Your task to perform on an android device: turn off javascript in the chrome app Image 0: 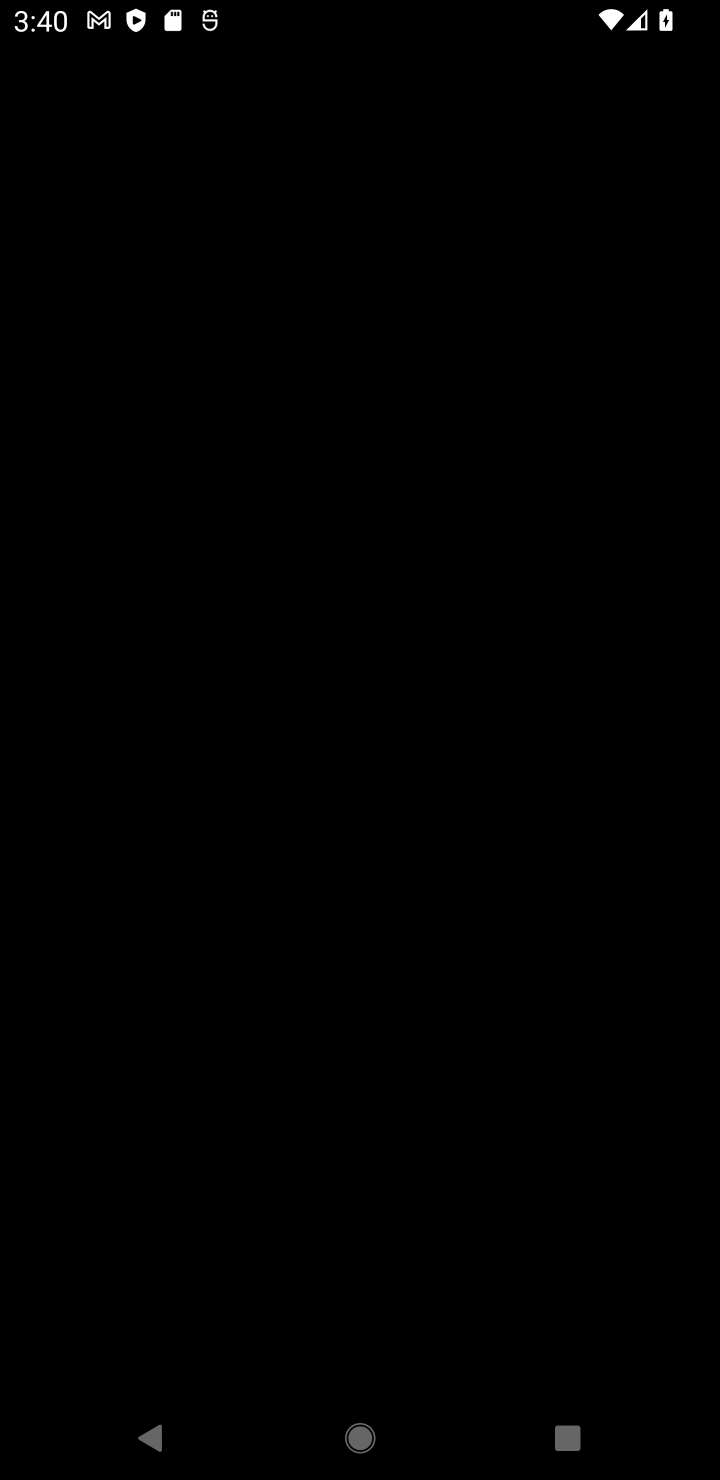
Step 0: press home button
Your task to perform on an android device: turn off javascript in the chrome app Image 1: 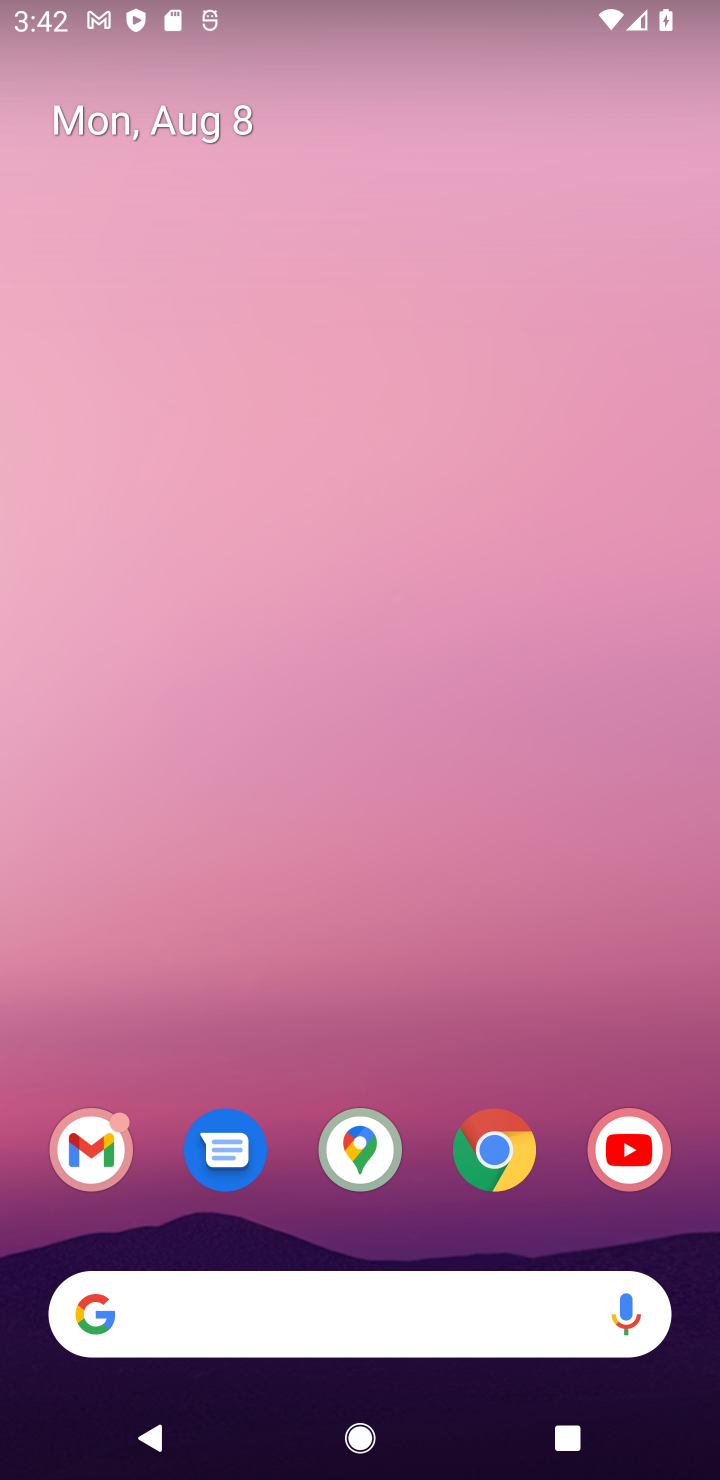
Step 1: click (510, 1124)
Your task to perform on an android device: turn off javascript in the chrome app Image 2: 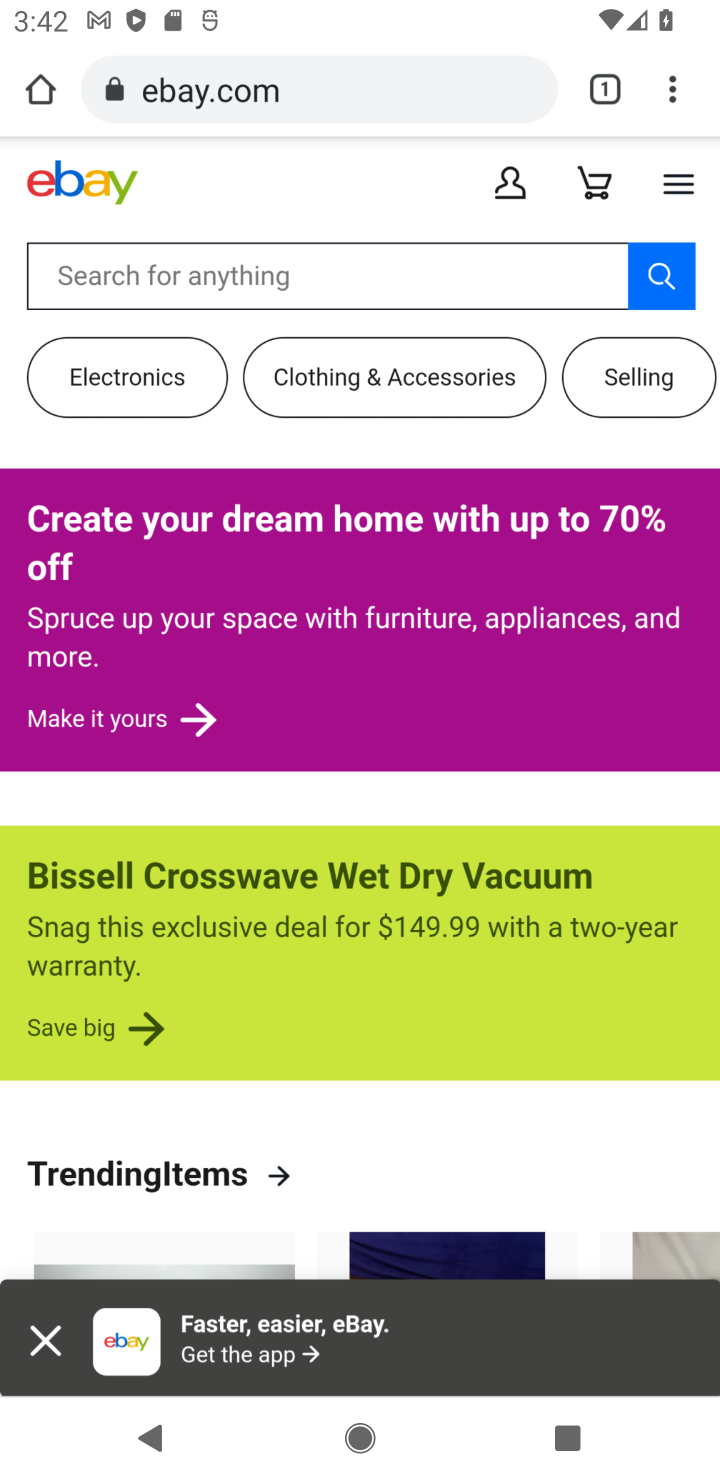
Step 2: task complete